Your task to perform on an android device: Open calendar and show me the fourth week of next month Image 0: 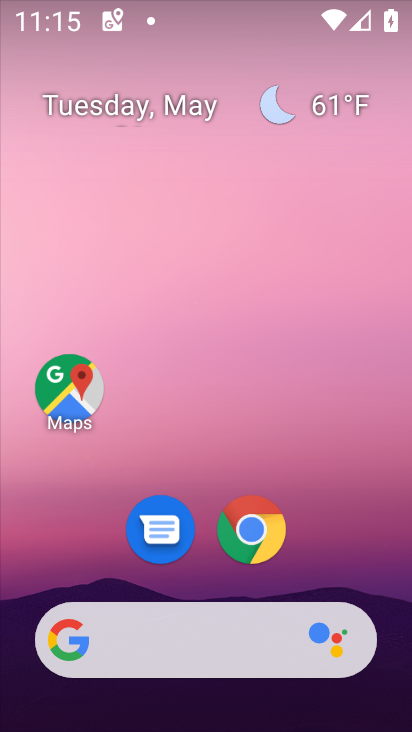
Step 0: drag from (309, 553) to (55, 79)
Your task to perform on an android device: Open calendar and show me the fourth week of next month Image 1: 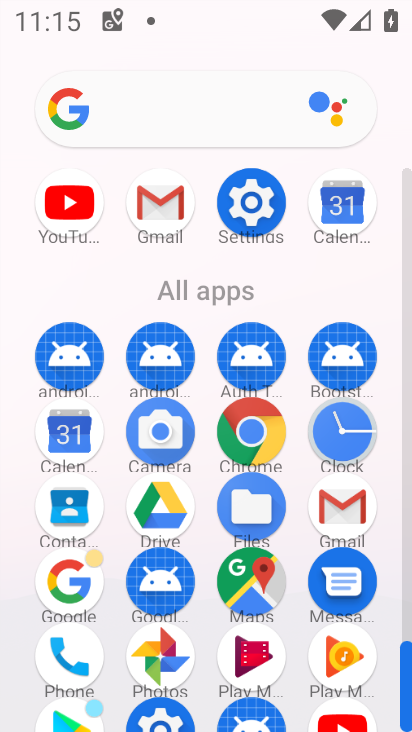
Step 1: click (71, 437)
Your task to perform on an android device: Open calendar and show me the fourth week of next month Image 2: 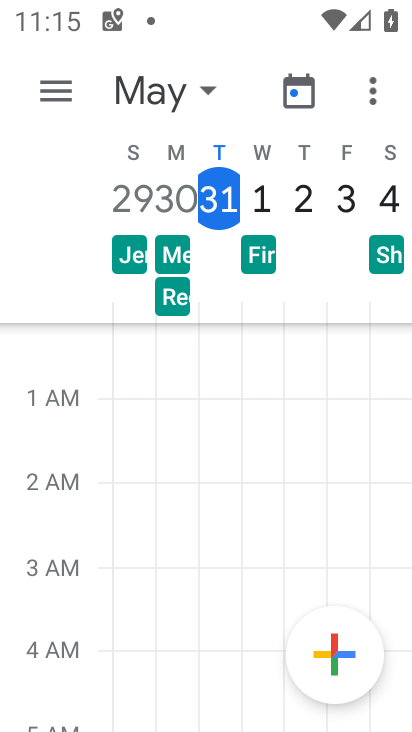
Step 2: click (199, 92)
Your task to perform on an android device: Open calendar and show me the fourth week of next month Image 3: 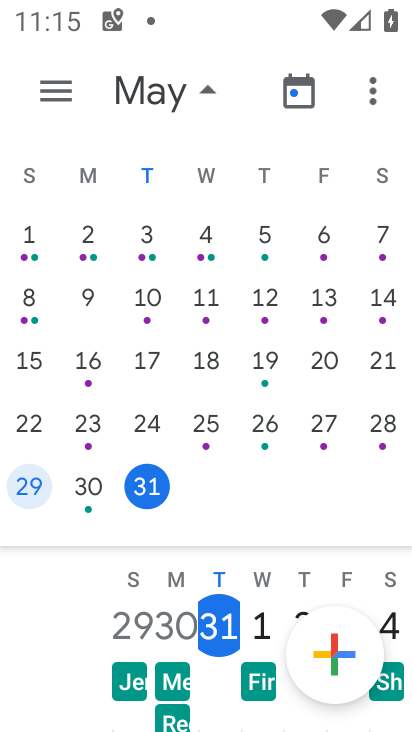
Step 3: drag from (304, 339) to (19, 338)
Your task to perform on an android device: Open calendar and show me the fourth week of next month Image 4: 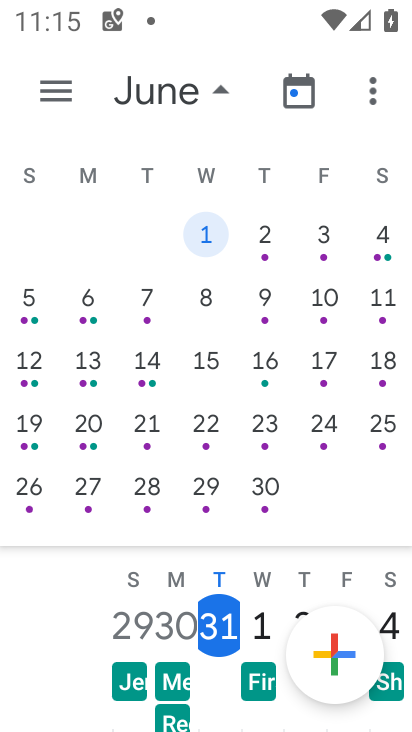
Step 4: click (27, 437)
Your task to perform on an android device: Open calendar and show me the fourth week of next month Image 5: 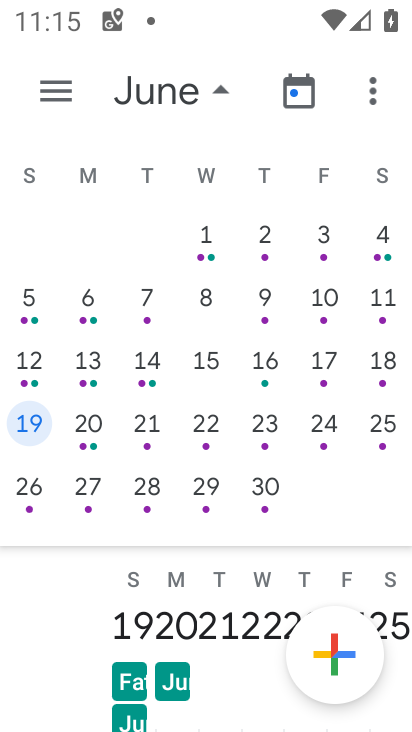
Step 5: click (170, 97)
Your task to perform on an android device: Open calendar and show me the fourth week of next month Image 6: 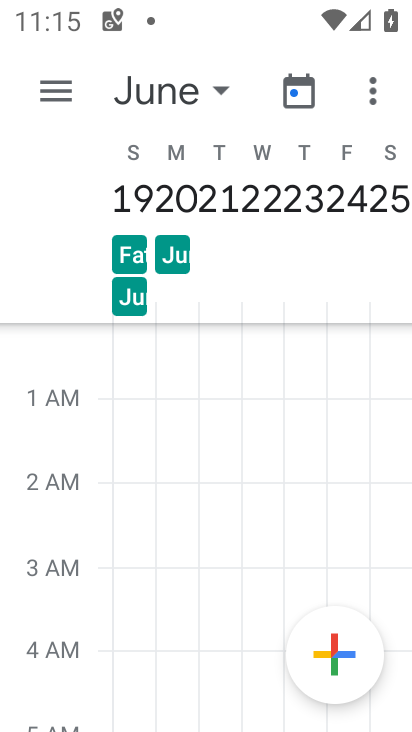
Step 6: task complete